Your task to perform on an android device: turn on location history Image 0: 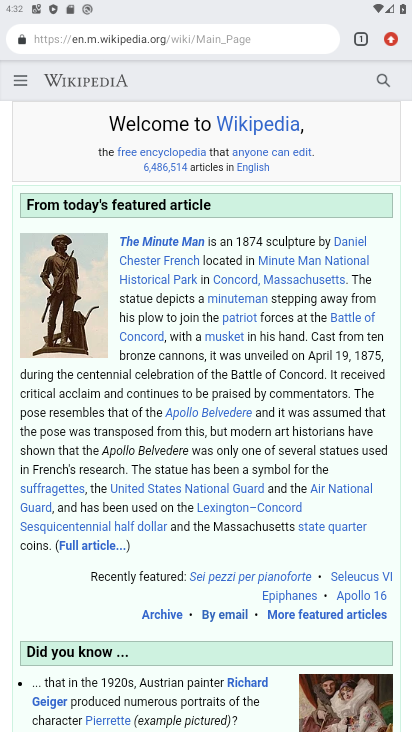
Step 0: press home button
Your task to perform on an android device: turn on location history Image 1: 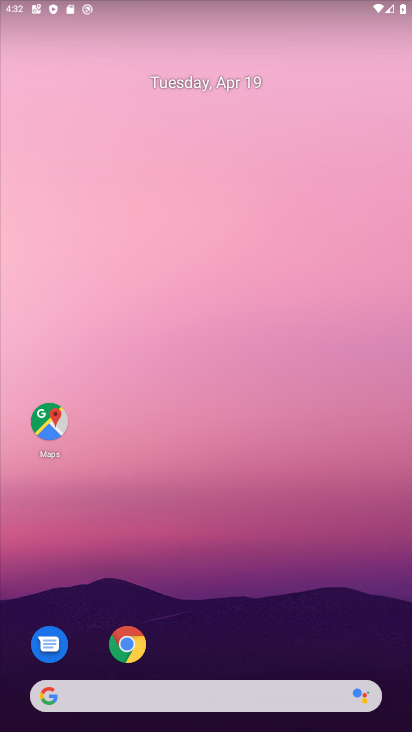
Step 1: drag from (270, 622) to (315, 156)
Your task to perform on an android device: turn on location history Image 2: 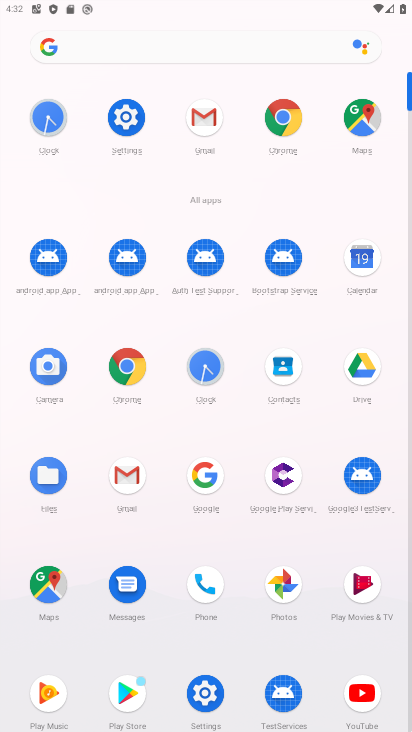
Step 2: click (215, 692)
Your task to perform on an android device: turn on location history Image 3: 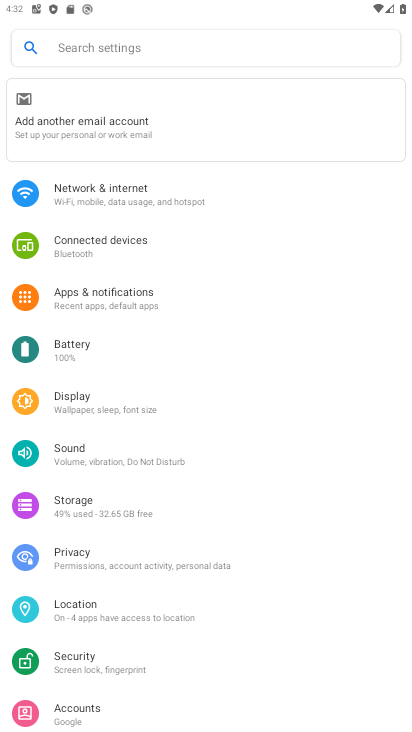
Step 3: click (88, 616)
Your task to perform on an android device: turn on location history Image 4: 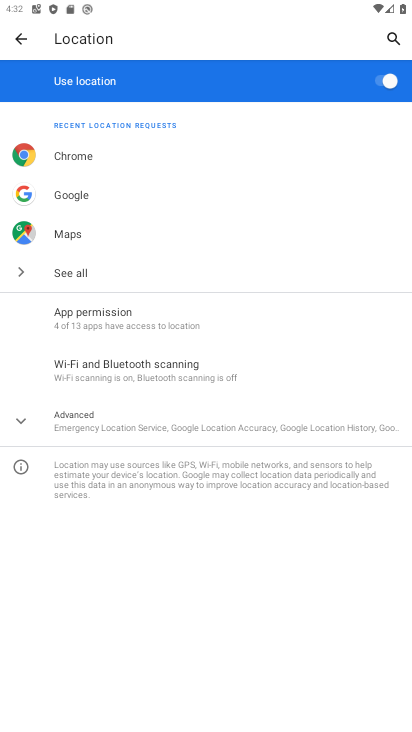
Step 4: click (21, 421)
Your task to perform on an android device: turn on location history Image 5: 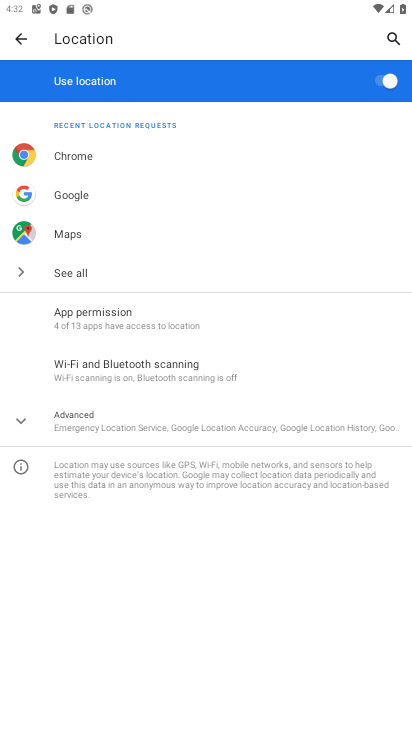
Step 5: click (18, 422)
Your task to perform on an android device: turn on location history Image 6: 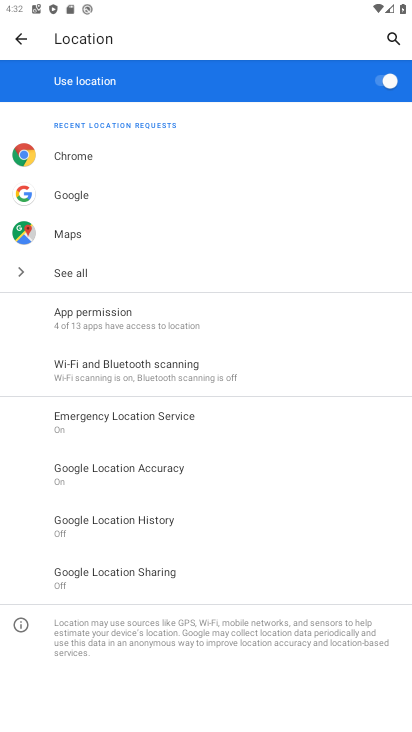
Step 6: click (133, 527)
Your task to perform on an android device: turn on location history Image 7: 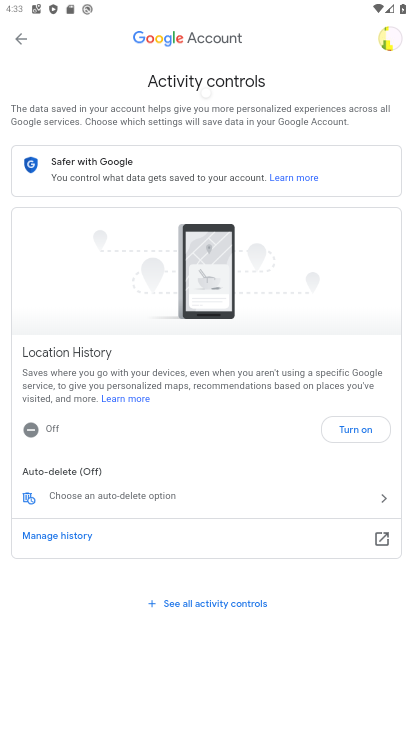
Step 7: click (377, 429)
Your task to perform on an android device: turn on location history Image 8: 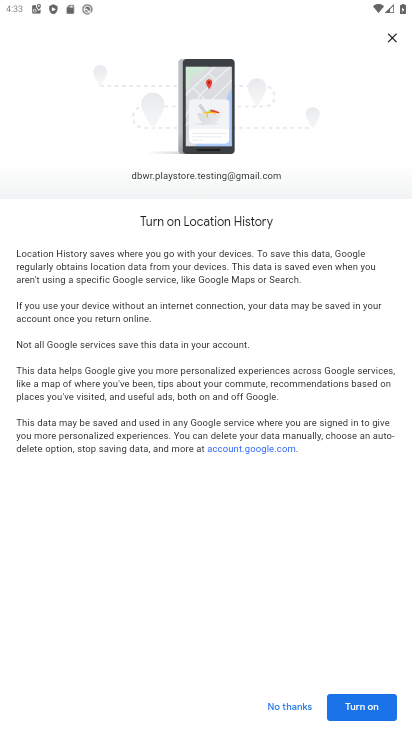
Step 8: click (364, 705)
Your task to perform on an android device: turn on location history Image 9: 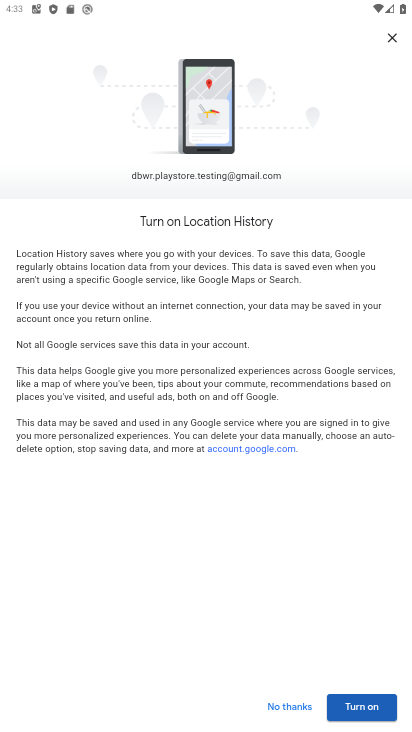
Step 9: click (361, 704)
Your task to perform on an android device: turn on location history Image 10: 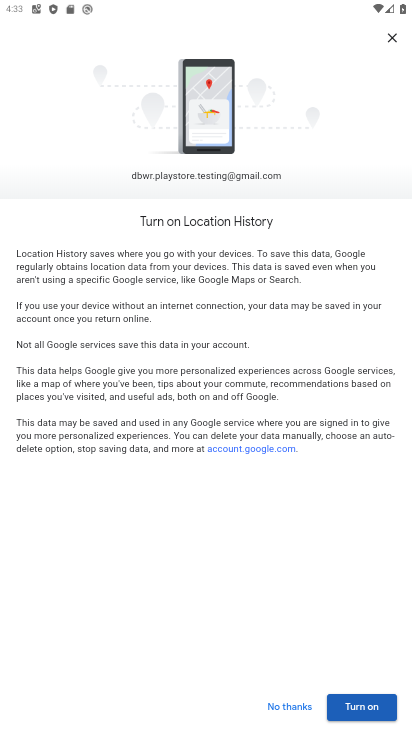
Step 10: click (378, 706)
Your task to perform on an android device: turn on location history Image 11: 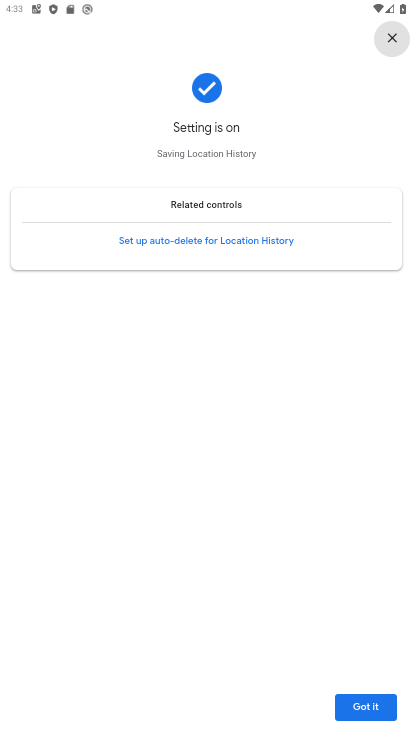
Step 11: task complete